Your task to perform on an android device: Open Android settings Image 0: 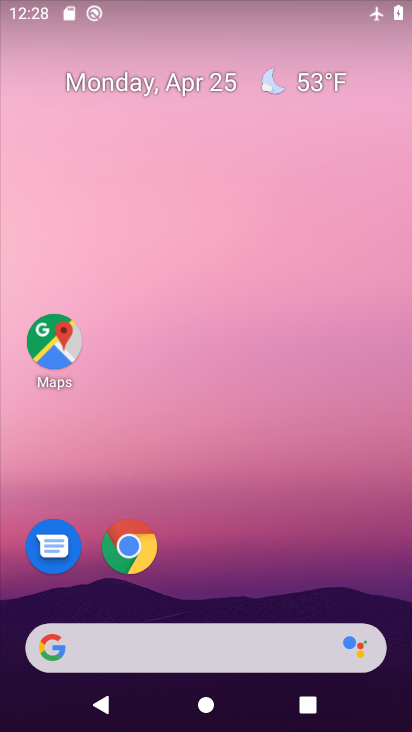
Step 0: click (261, 24)
Your task to perform on an android device: Open Android settings Image 1: 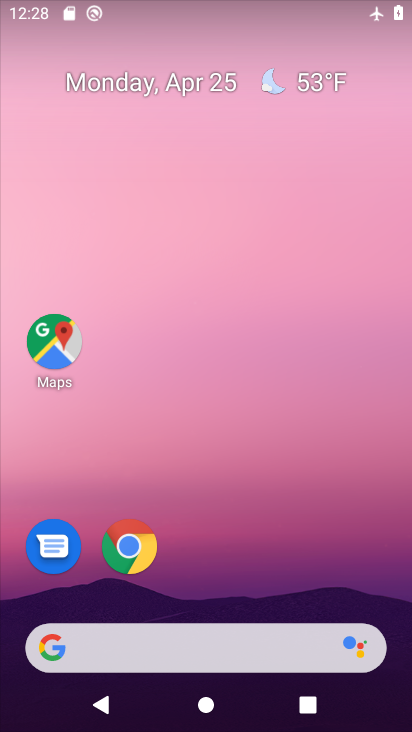
Step 1: drag from (291, 490) to (269, 0)
Your task to perform on an android device: Open Android settings Image 2: 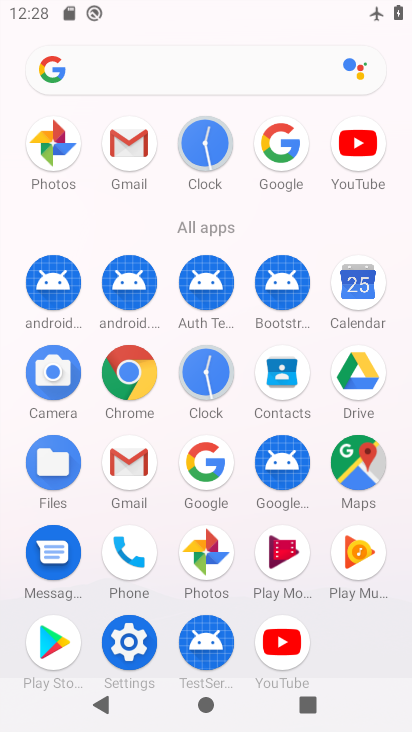
Step 2: click (133, 623)
Your task to perform on an android device: Open Android settings Image 3: 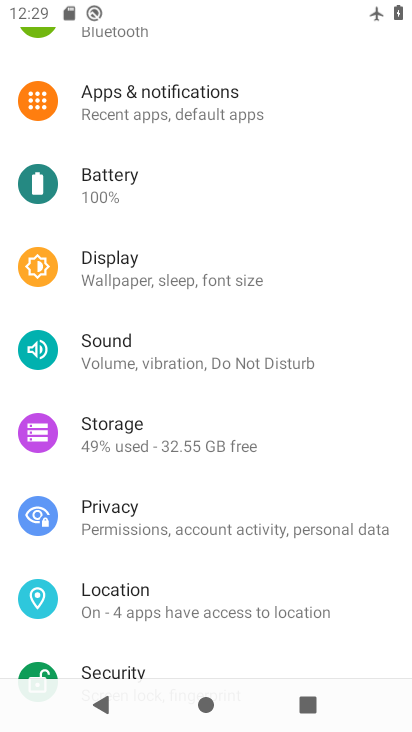
Step 3: drag from (198, 470) to (199, 86)
Your task to perform on an android device: Open Android settings Image 4: 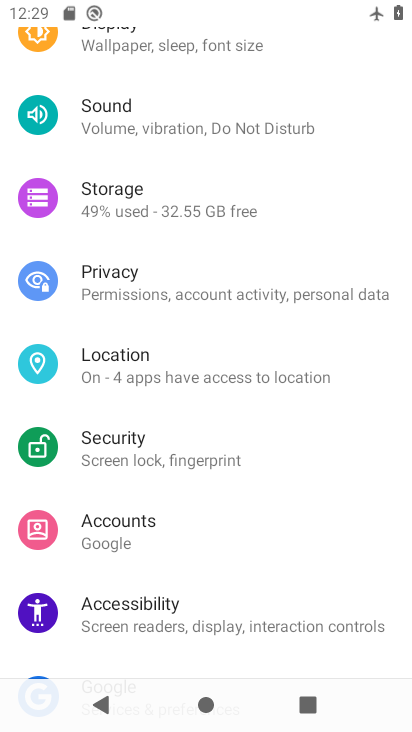
Step 4: drag from (213, 556) to (191, 189)
Your task to perform on an android device: Open Android settings Image 5: 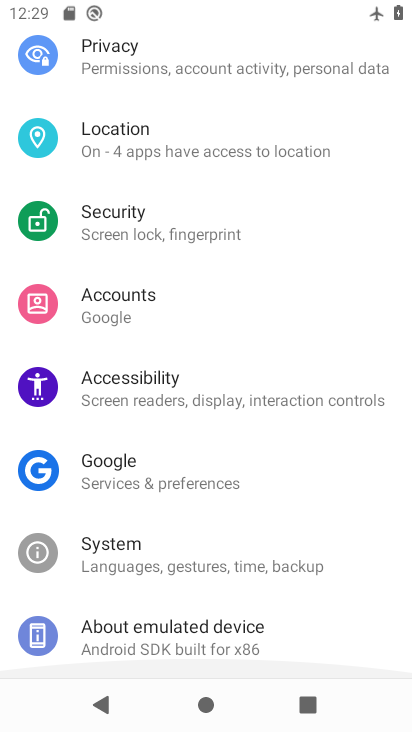
Step 5: drag from (212, 585) to (212, 316)
Your task to perform on an android device: Open Android settings Image 6: 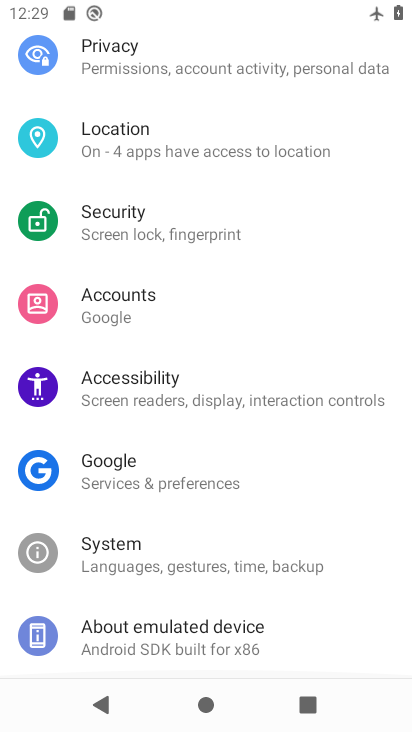
Step 6: click (190, 631)
Your task to perform on an android device: Open Android settings Image 7: 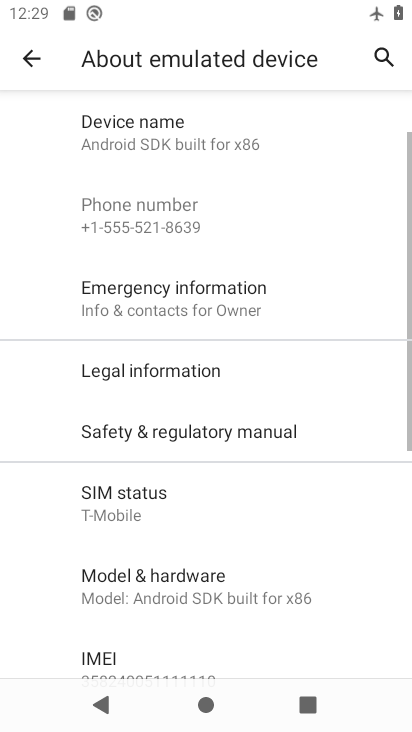
Step 7: drag from (235, 522) to (192, 172)
Your task to perform on an android device: Open Android settings Image 8: 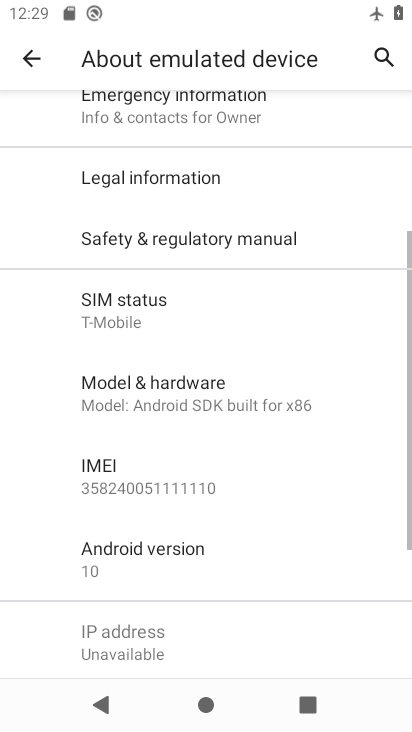
Step 8: click (125, 580)
Your task to perform on an android device: Open Android settings Image 9: 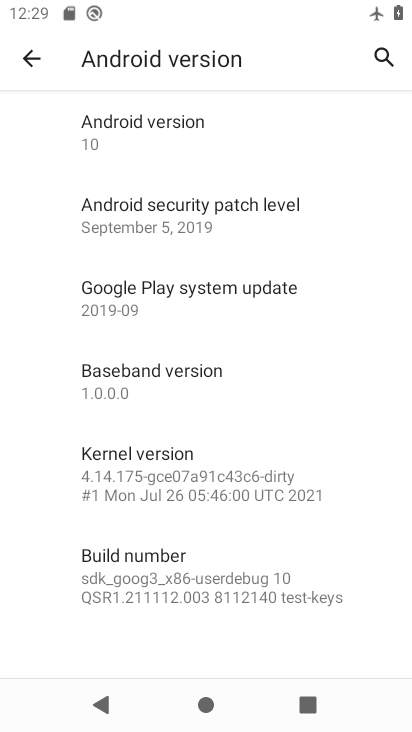
Step 9: task complete